Your task to perform on an android device: turn on notifications settings in the gmail app Image 0: 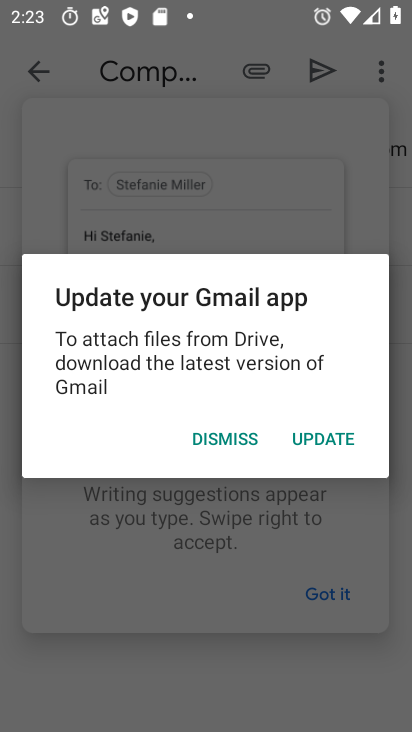
Step 0: press home button
Your task to perform on an android device: turn on notifications settings in the gmail app Image 1: 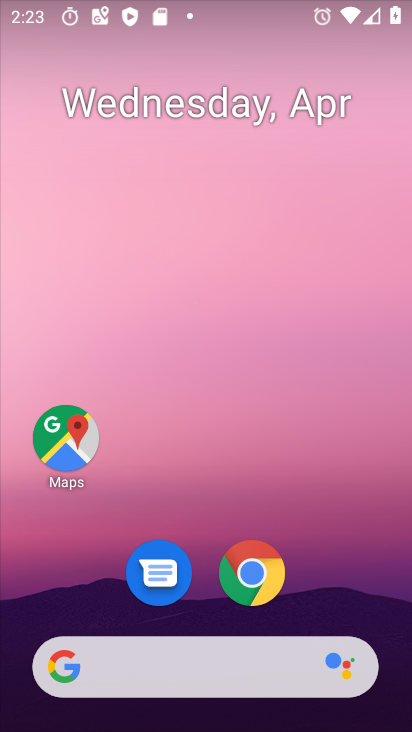
Step 1: drag from (333, 531) to (339, 204)
Your task to perform on an android device: turn on notifications settings in the gmail app Image 2: 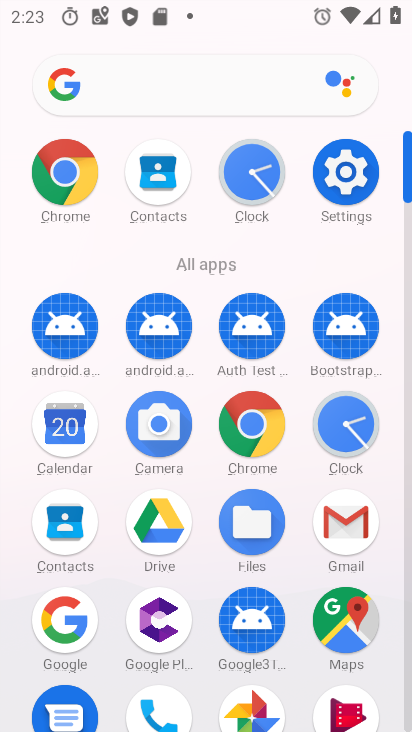
Step 2: click (347, 528)
Your task to perform on an android device: turn on notifications settings in the gmail app Image 3: 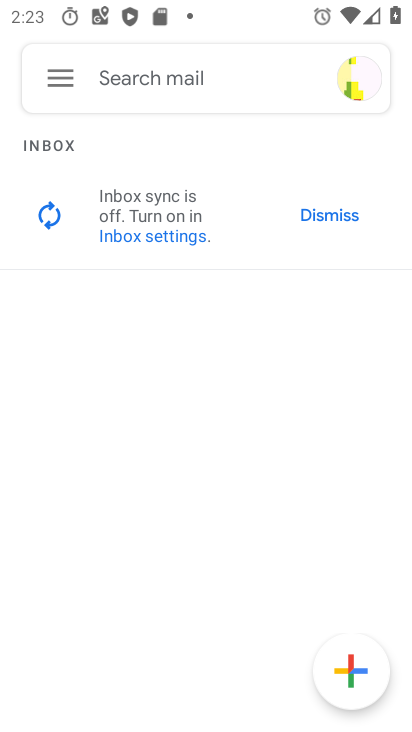
Step 3: click (58, 75)
Your task to perform on an android device: turn on notifications settings in the gmail app Image 4: 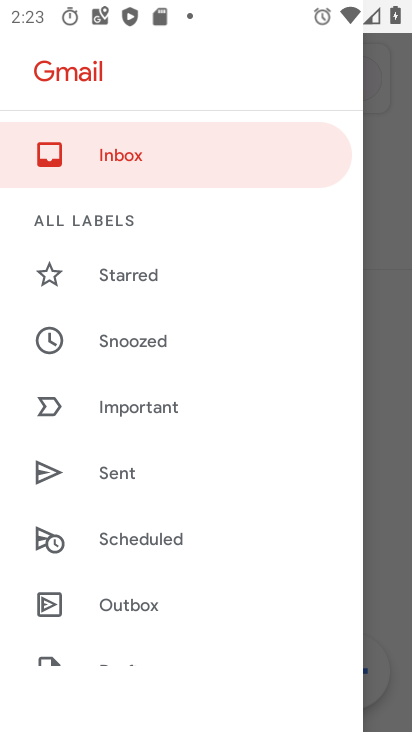
Step 4: drag from (282, 583) to (284, 347)
Your task to perform on an android device: turn on notifications settings in the gmail app Image 5: 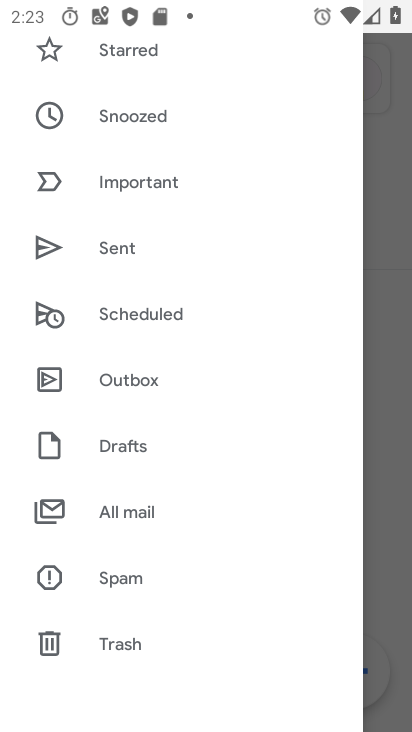
Step 5: drag from (304, 545) to (307, 388)
Your task to perform on an android device: turn on notifications settings in the gmail app Image 6: 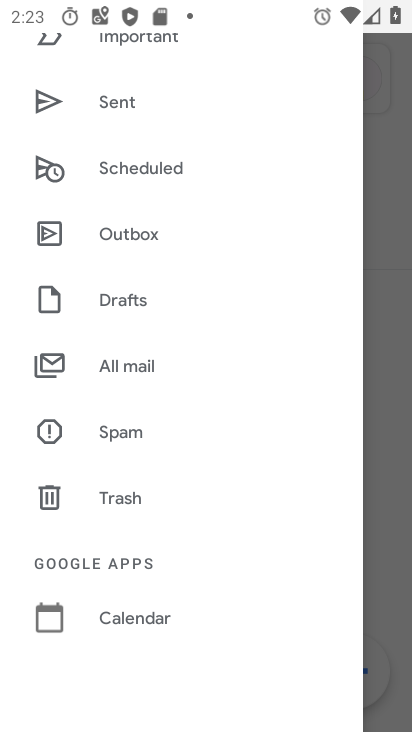
Step 6: drag from (287, 545) to (290, 411)
Your task to perform on an android device: turn on notifications settings in the gmail app Image 7: 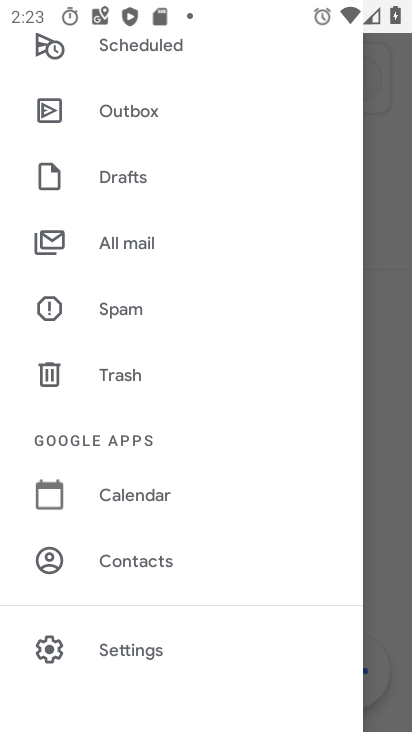
Step 7: drag from (282, 589) to (288, 421)
Your task to perform on an android device: turn on notifications settings in the gmail app Image 8: 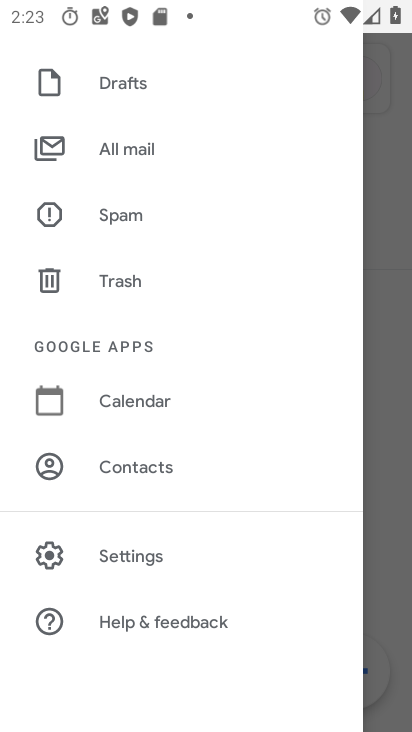
Step 8: click (147, 556)
Your task to perform on an android device: turn on notifications settings in the gmail app Image 9: 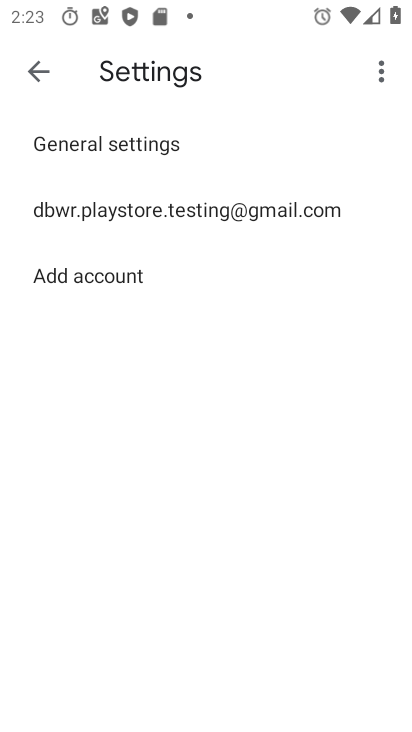
Step 9: click (196, 210)
Your task to perform on an android device: turn on notifications settings in the gmail app Image 10: 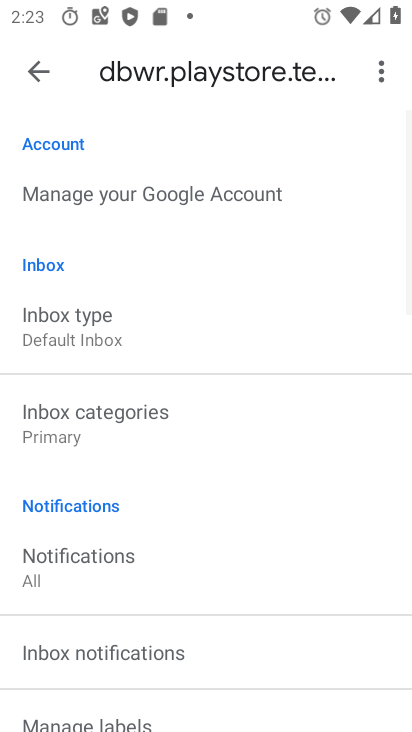
Step 10: drag from (298, 532) to (302, 416)
Your task to perform on an android device: turn on notifications settings in the gmail app Image 11: 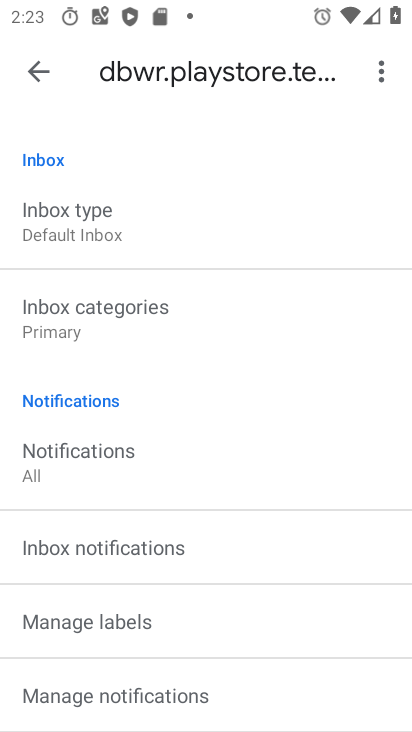
Step 11: drag from (333, 547) to (337, 372)
Your task to perform on an android device: turn on notifications settings in the gmail app Image 12: 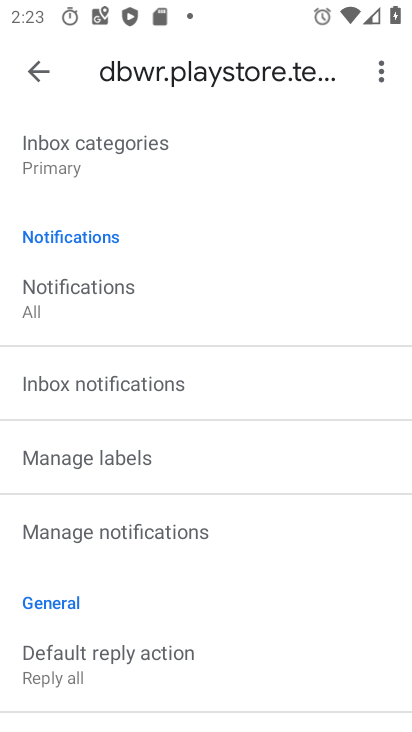
Step 12: drag from (337, 549) to (334, 417)
Your task to perform on an android device: turn on notifications settings in the gmail app Image 13: 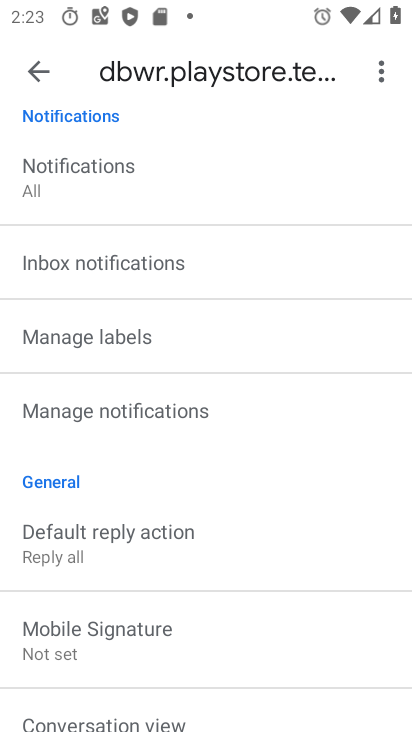
Step 13: click (205, 415)
Your task to perform on an android device: turn on notifications settings in the gmail app Image 14: 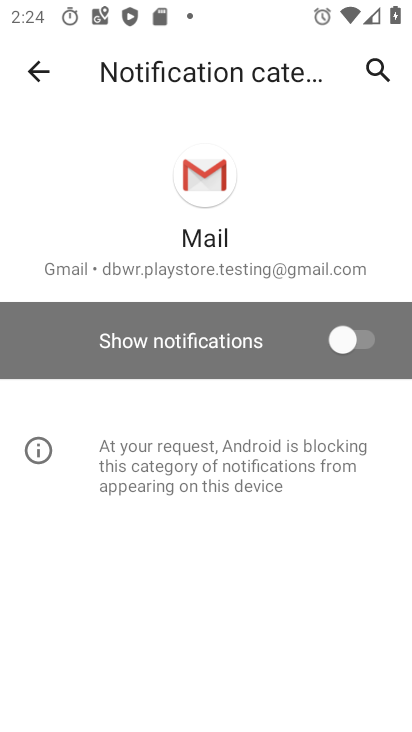
Step 14: click (341, 345)
Your task to perform on an android device: turn on notifications settings in the gmail app Image 15: 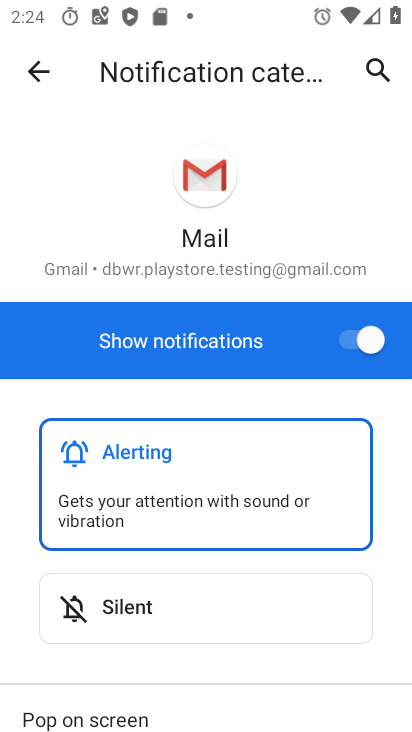
Step 15: task complete